Your task to perform on an android device: turn pop-ups off in chrome Image 0: 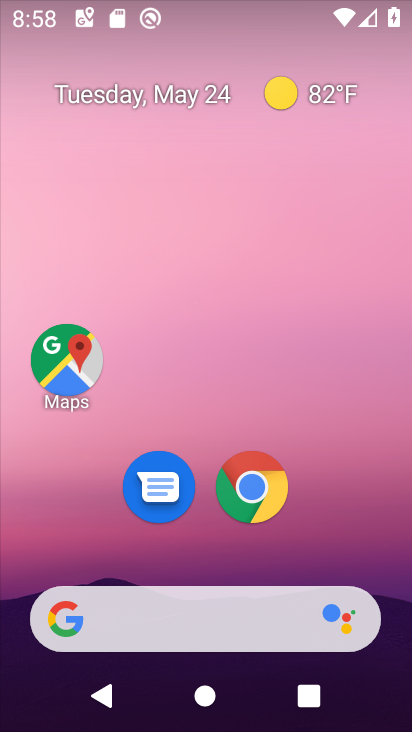
Step 0: drag from (365, 518) to (318, 77)
Your task to perform on an android device: turn pop-ups off in chrome Image 1: 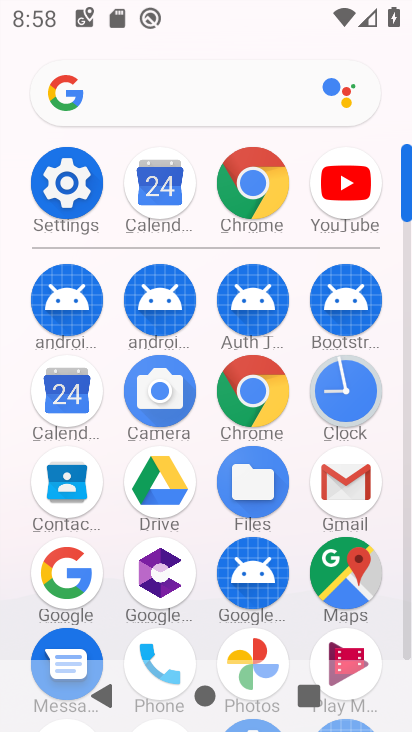
Step 1: click (231, 382)
Your task to perform on an android device: turn pop-ups off in chrome Image 2: 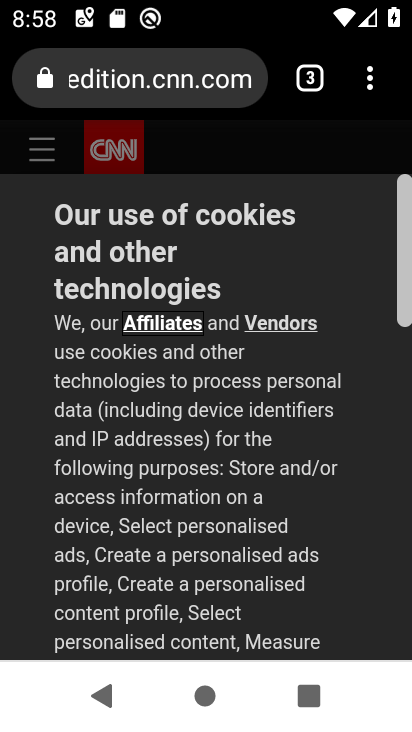
Step 2: drag from (372, 90) to (127, 550)
Your task to perform on an android device: turn pop-ups off in chrome Image 3: 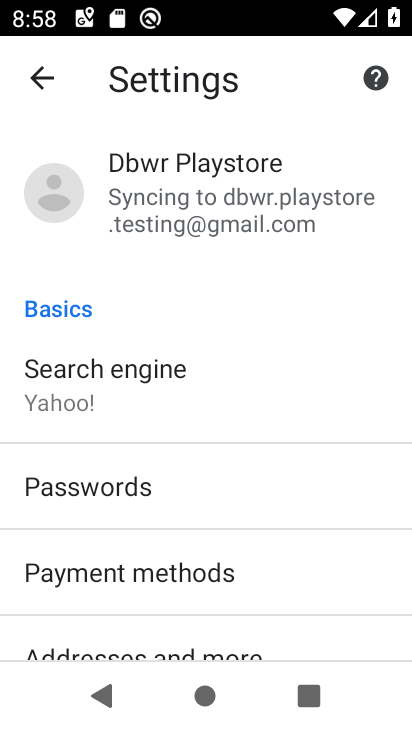
Step 3: drag from (276, 612) to (334, 277)
Your task to perform on an android device: turn pop-ups off in chrome Image 4: 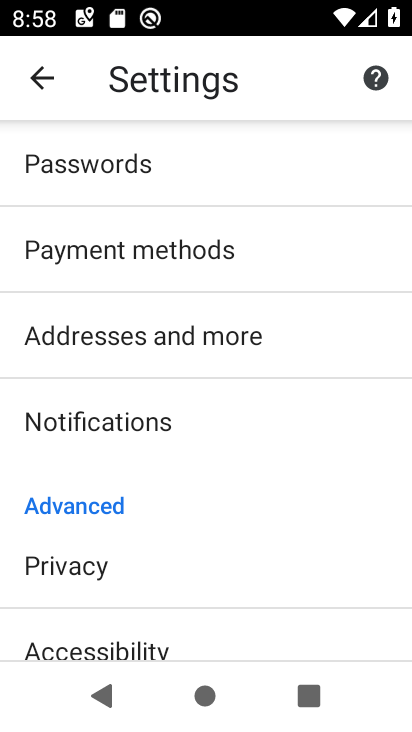
Step 4: drag from (254, 585) to (304, 289)
Your task to perform on an android device: turn pop-ups off in chrome Image 5: 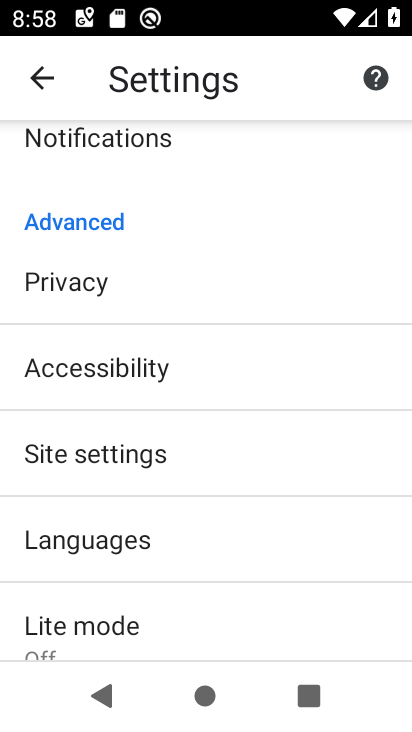
Step 5: click (166, 456)
Your task to perform on an android device: turn pop-ups off in chrome Image 6: 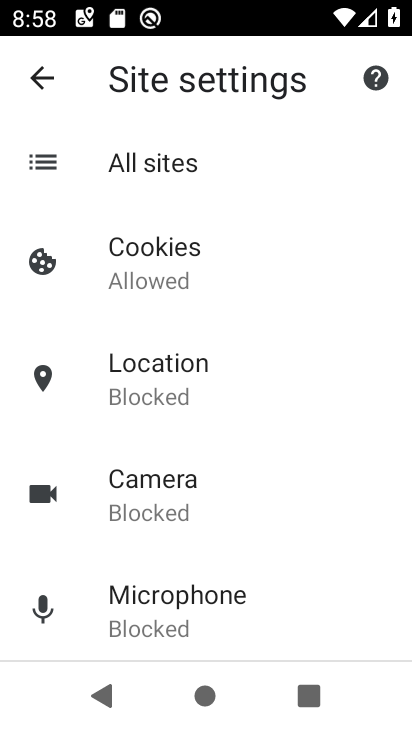
Step 6: drag from (259, 556) to (297, 314)
Your task to perform on an android device: turn pop-ups off in chrome Image 7: 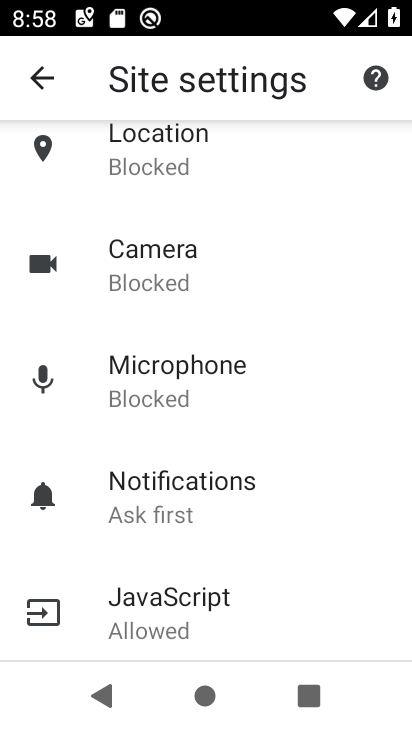
Step 7: drag from (278, 566) to (292, 273)
Your task to perform on an android device: turn pop-ups off in chrome Image 8: 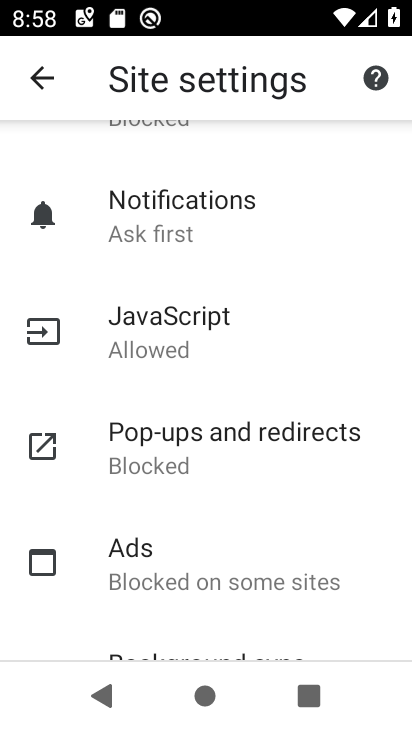
Step 8: click (257, 450)
Your task to perform on an android device: turn pop-ups off in chrome Image 9: 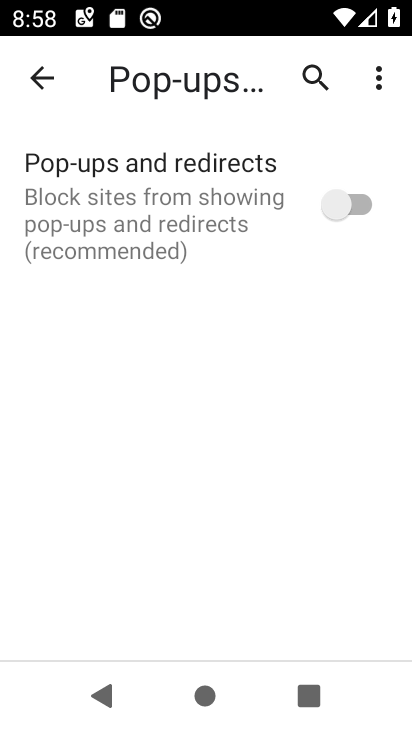
Step 9: task complete